Your task to perform on an android device: open app "Facebook" Image 0: 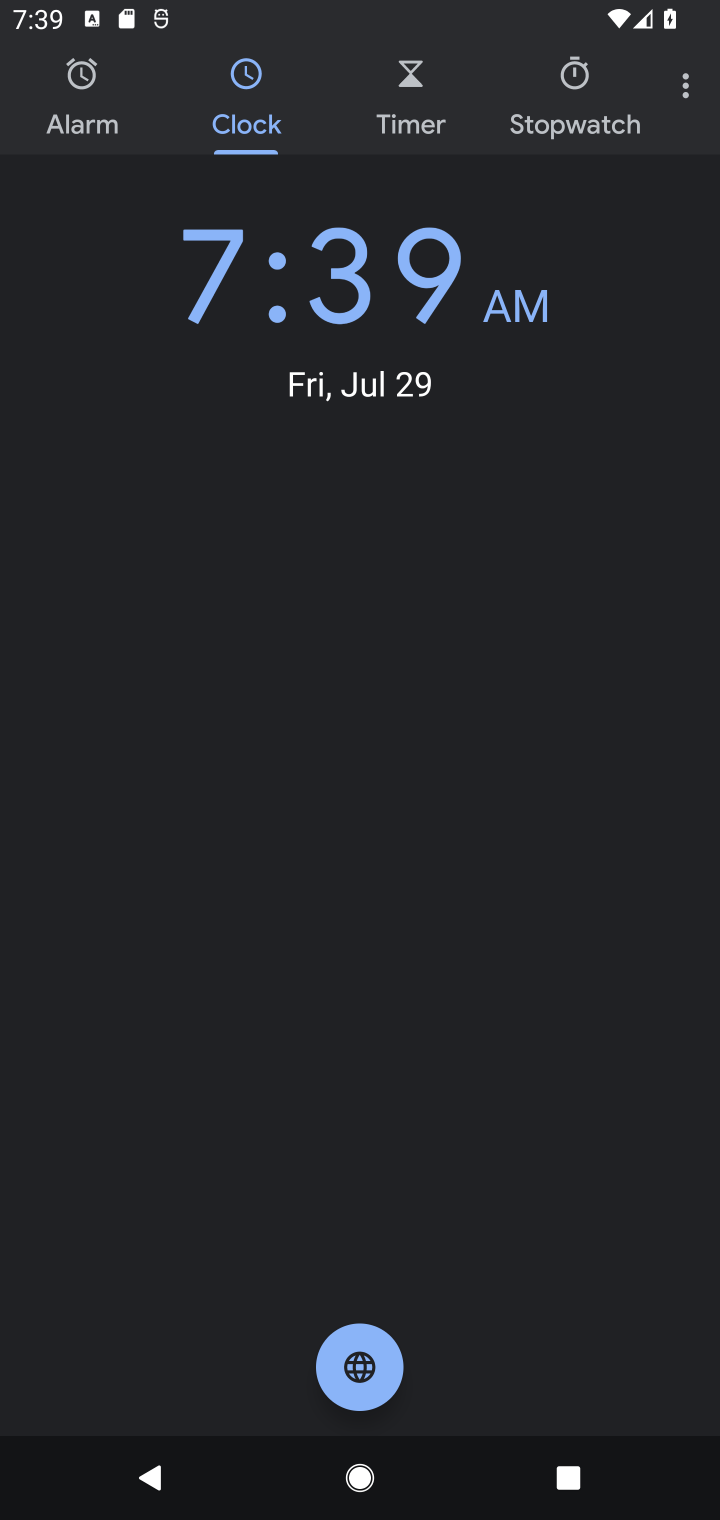
Step 0: press home button
Your task to perform on an android device: open app "Facebook" Image 1: 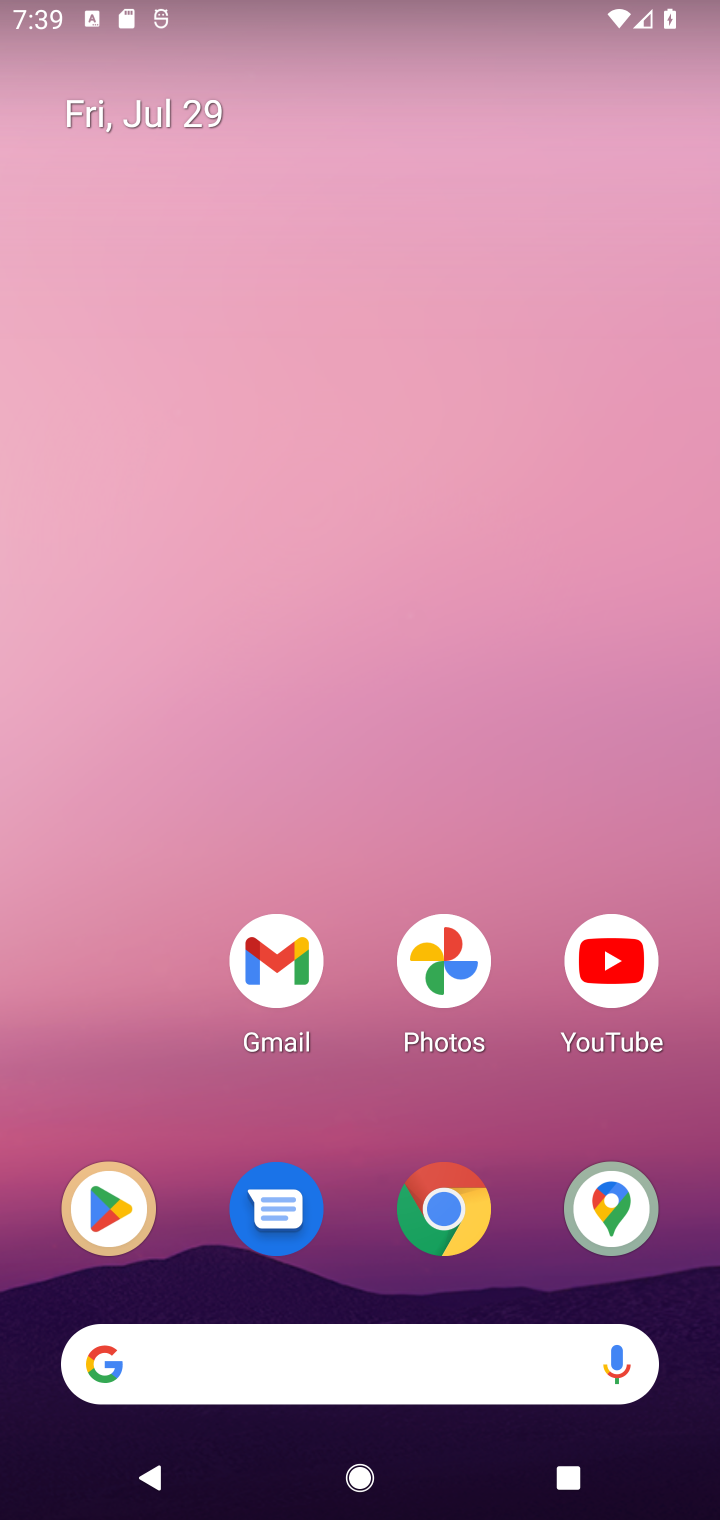
Step 1: click (106, 1214)
Your task to perform on an android device: open app "Facebook" Image 2: 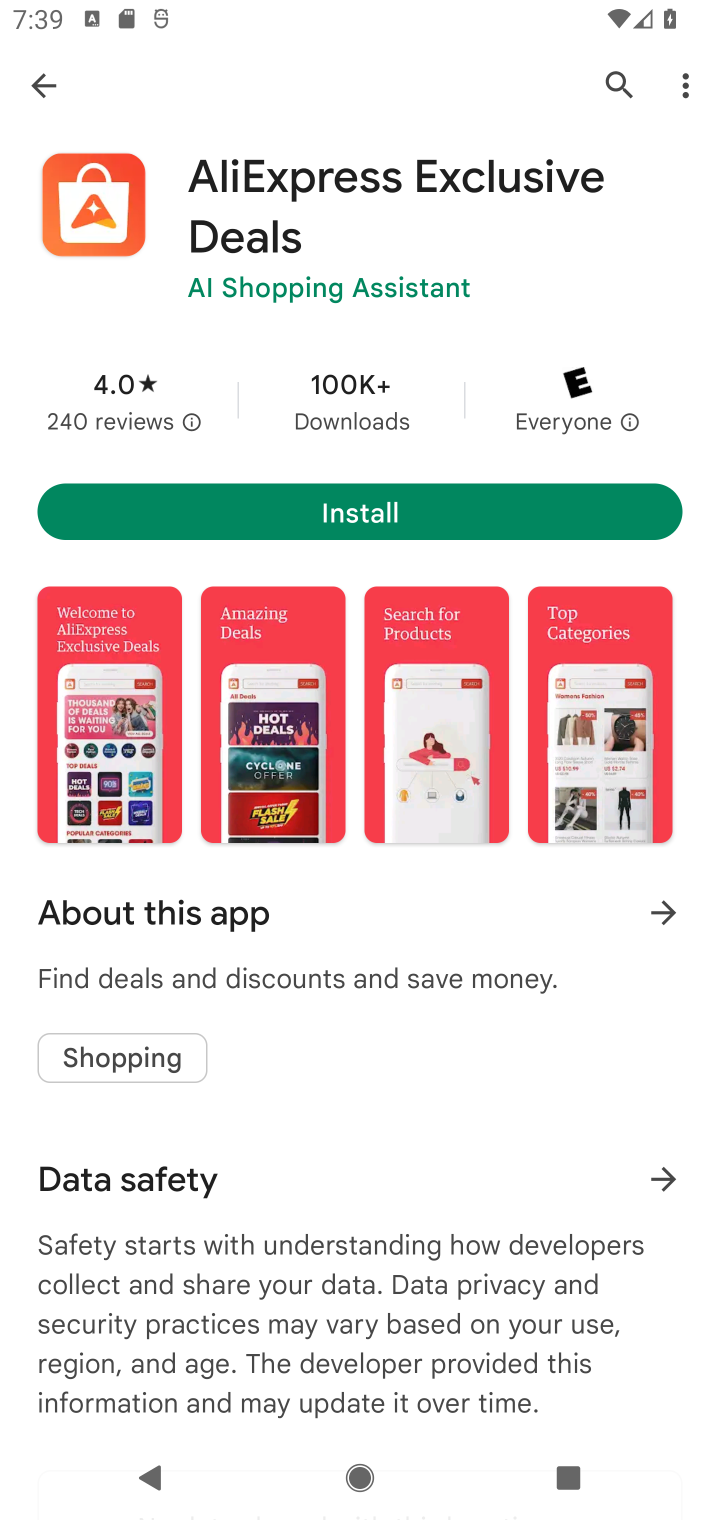
Step 2: click (624, 80)
Your task to perform on an android device: open app "Facebook" Image 3: 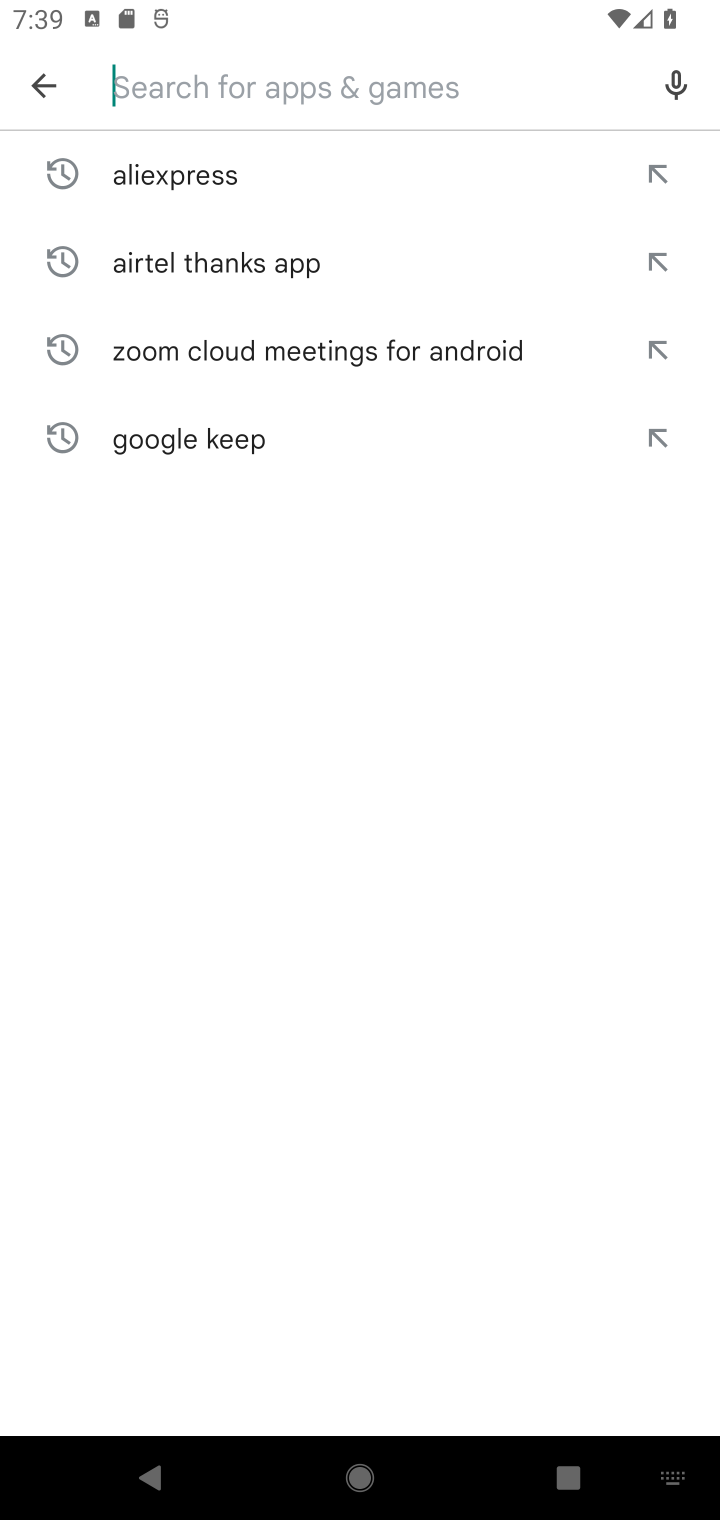
Step 3: type "Facebook"
Your task to perform on an android device: open app "Facebook" Image 4: 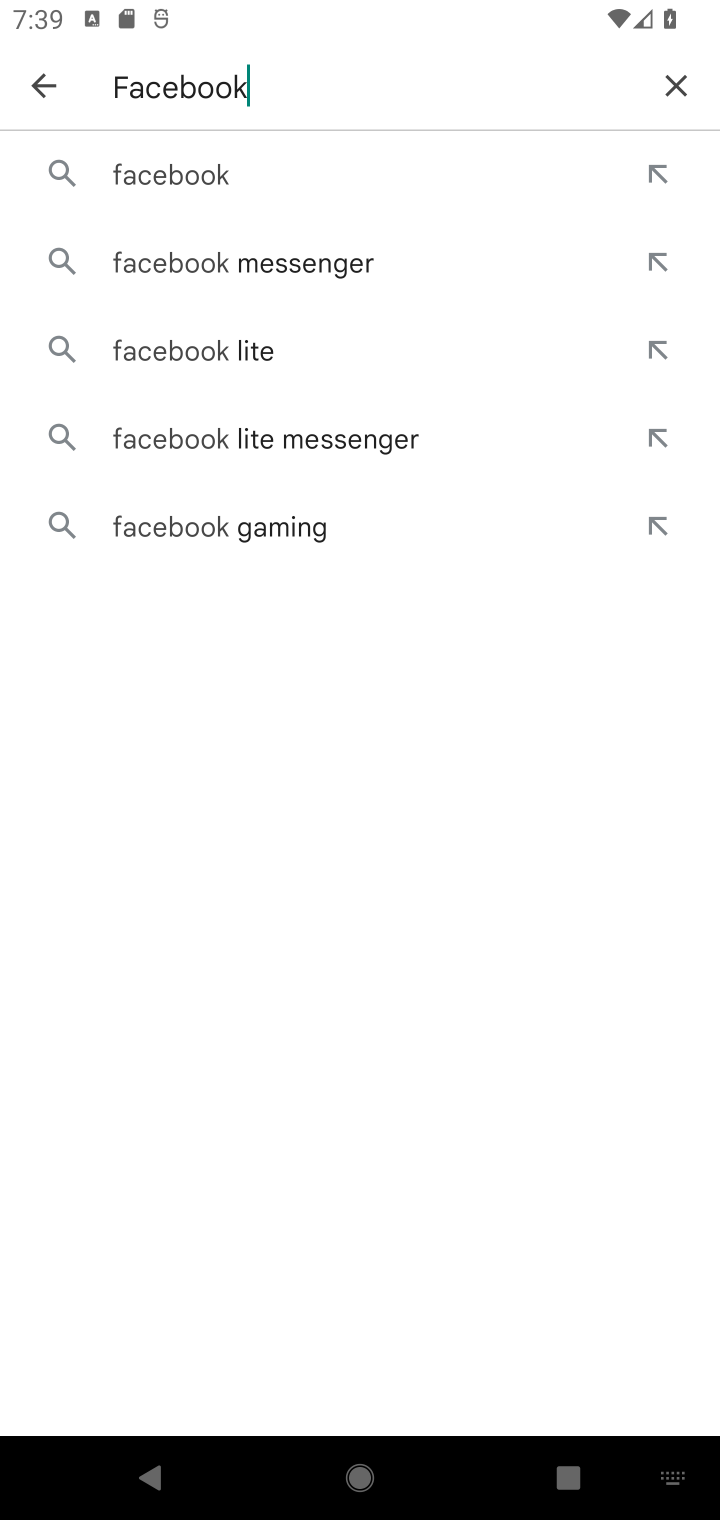
Step 4: click (140, 187)
Your task to perform on an android device: open app "Facebook" Image 5: 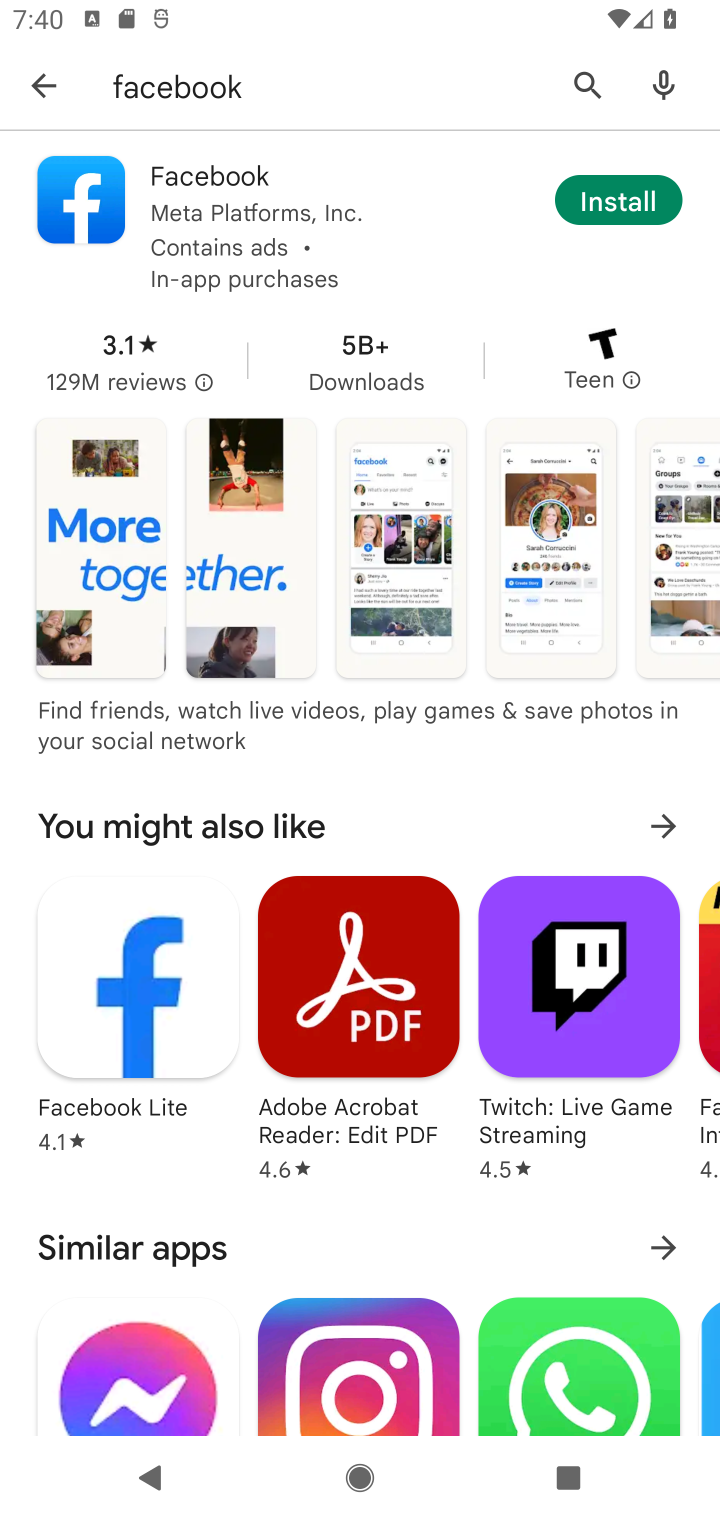
Step 5: task complete